Your task to perform on an android device: change the upload size in google photos Image 0: 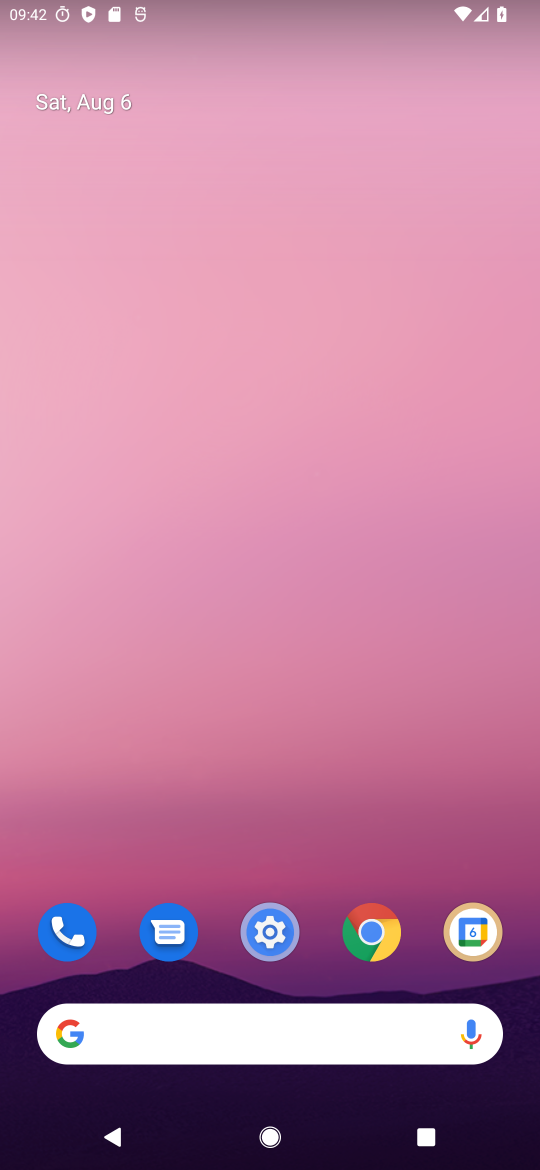
Step 0: drag from (270, 1030) to (435, 166)
Your task to perform on an android device: change the upload size in google photos Image 1: 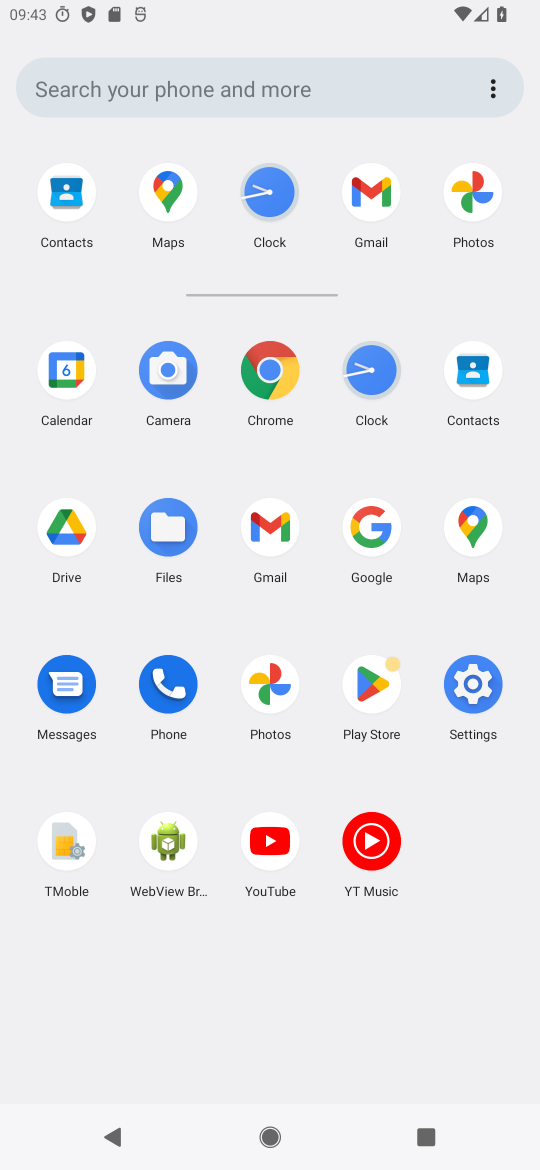
Step 1: click (471, 187)
Your task to perform on an android device: change the upload size in google photos Image 2: 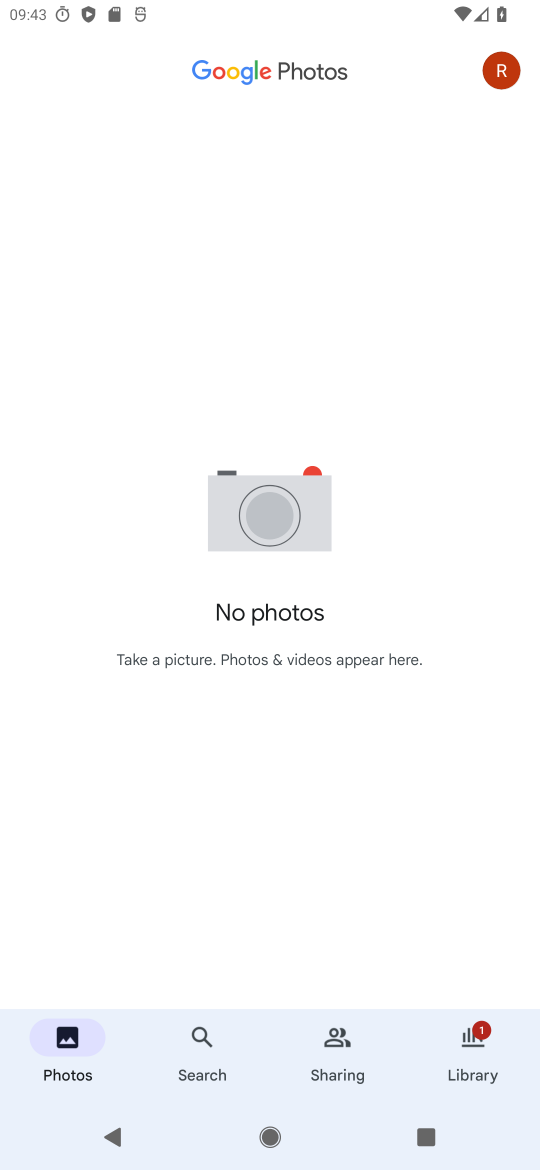
Step 2: click (496, 71)
Your task to perform on an android device: change the upload size in google photos Image 3: 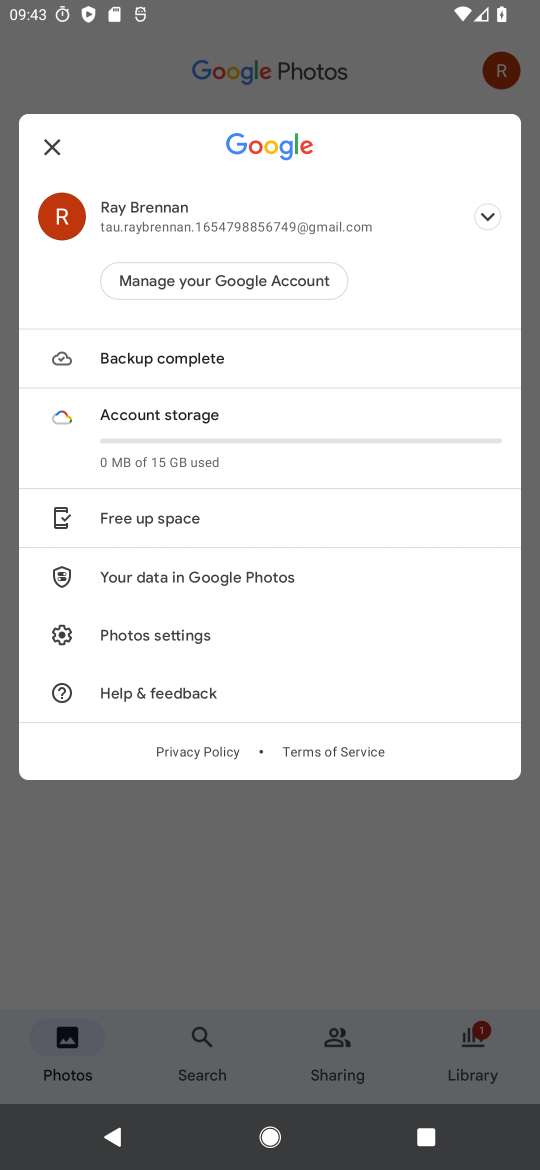
Step 3: click (138, 635)
Your task to perform on an android device: change the upload size in google photos Image 4: 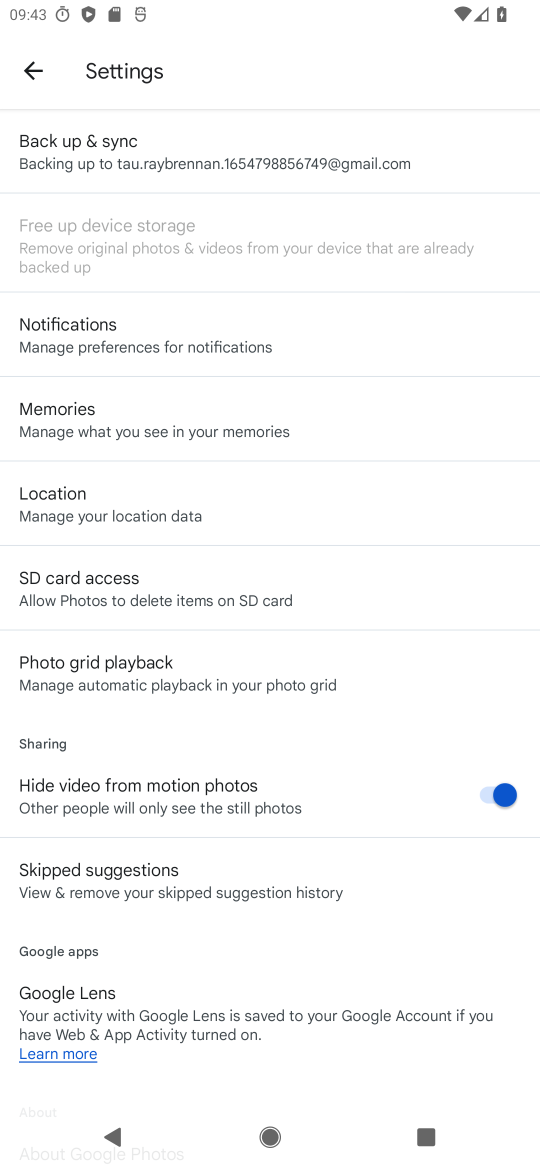
Step 4: click (196, 177)
Your task to perform on an android device: change the upload size in google photos Image 5: 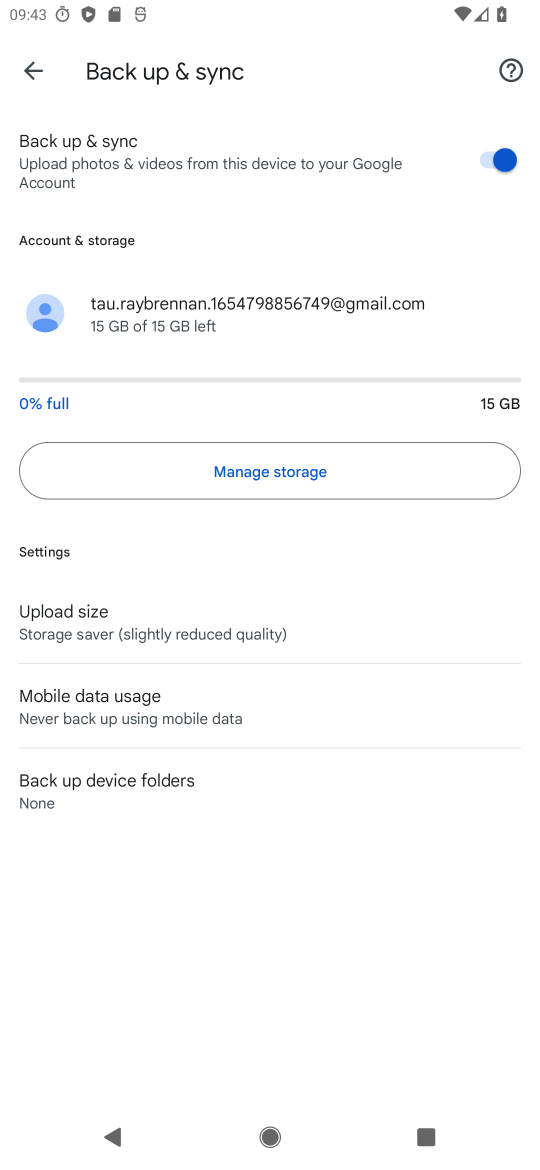
Step 5: click (158, 601)
Your task to perform on an android device: change the upload size in google photos Image 6: 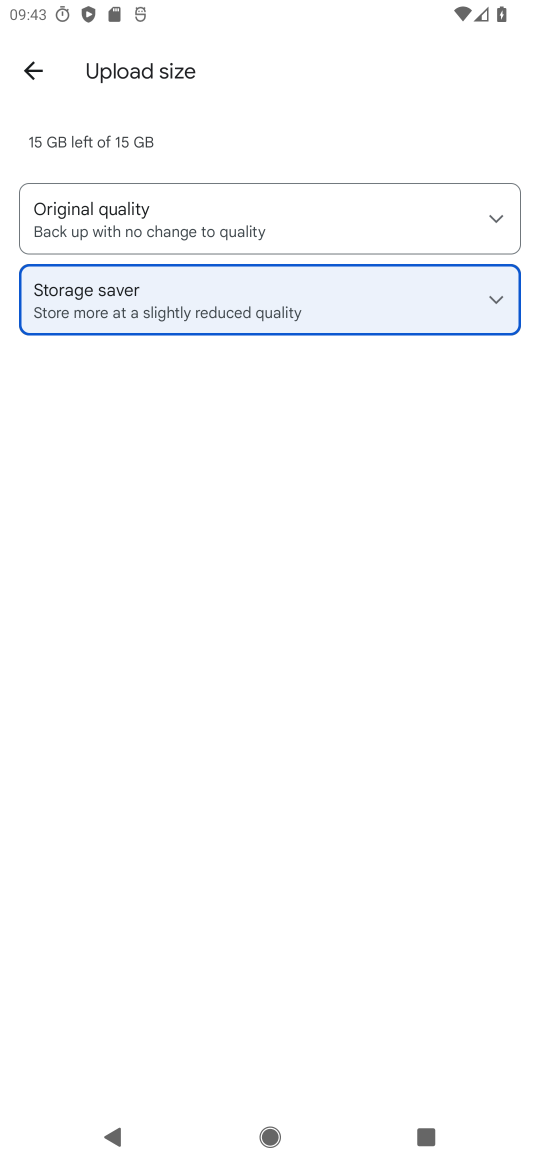
Step 6: click (492, 212)
Your task to perform on an android device: change the upload size in google photos Image 7: 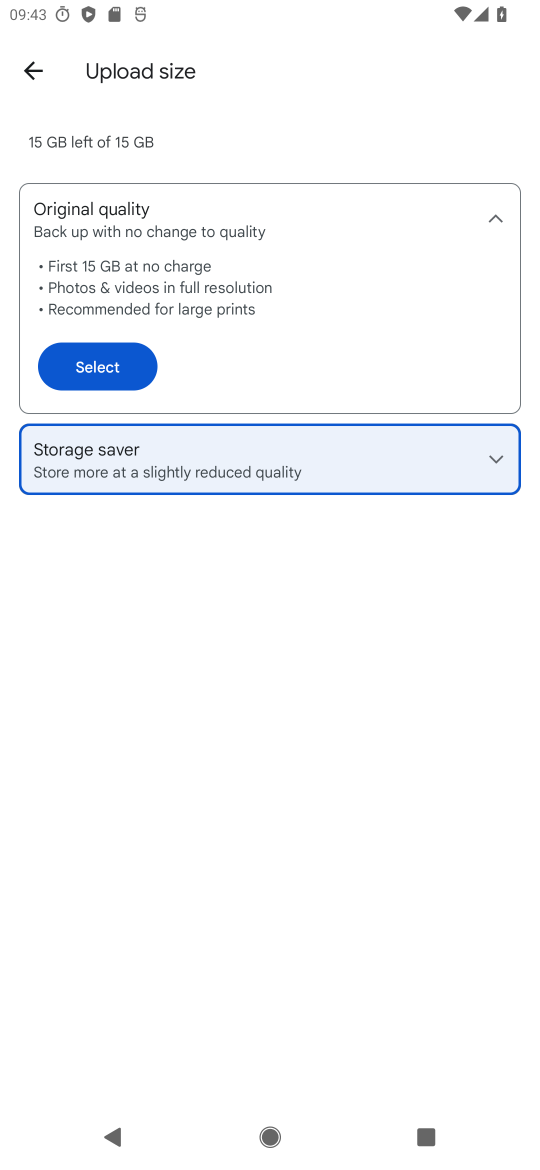
Step 7: click (94, 355)
Your task to perform on an android device: change the upload size in google photos Image 8: 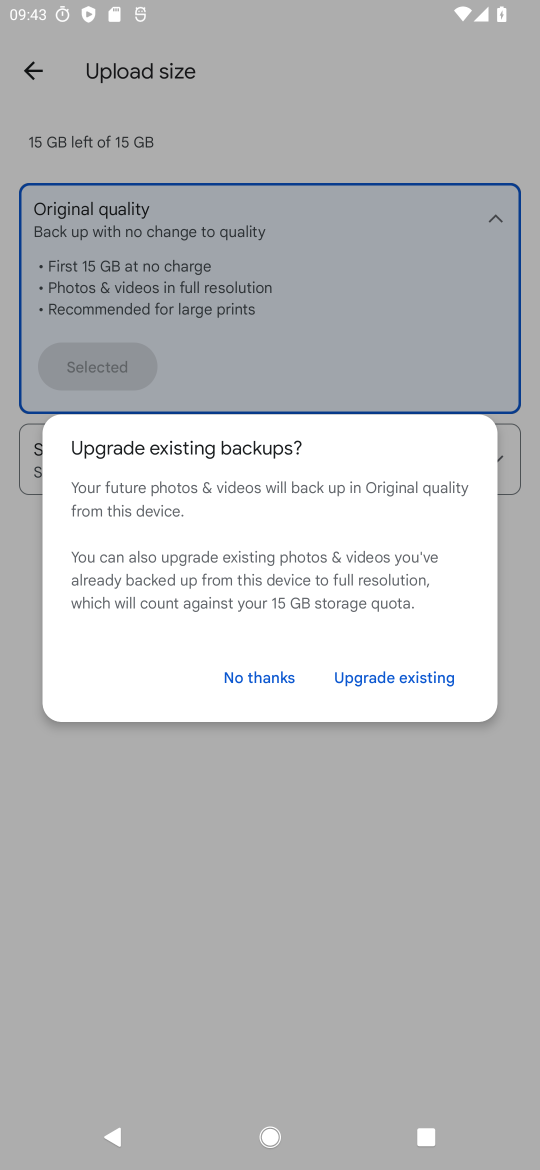
Step 8: click (384, 678)
Your task to perform on an android device: change the upload size in google photos Image 9: 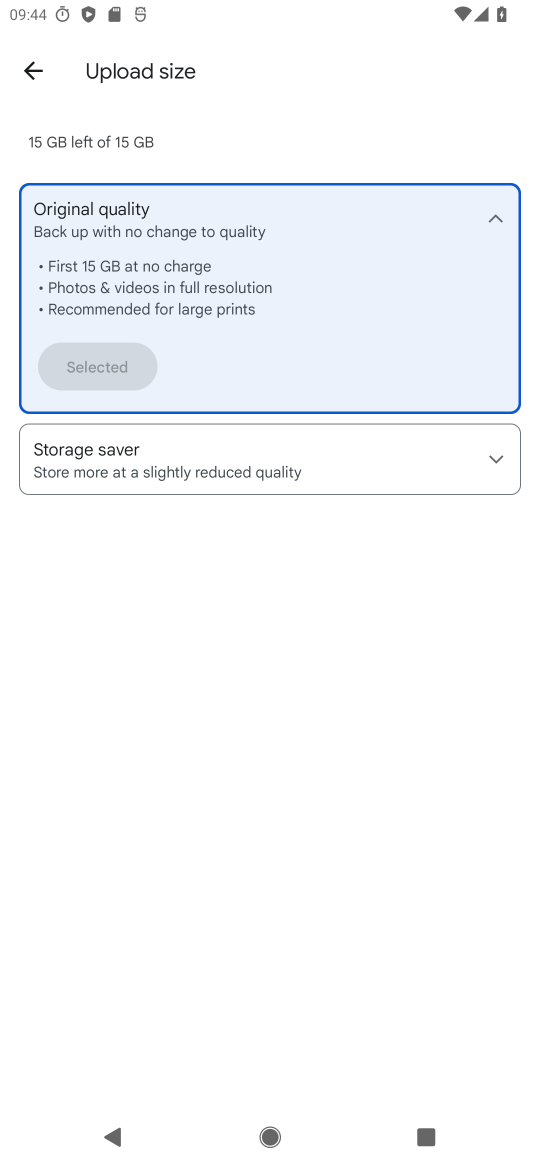
Step 9: task complete